Your task to perform on an android device: turn on location history Image 0: 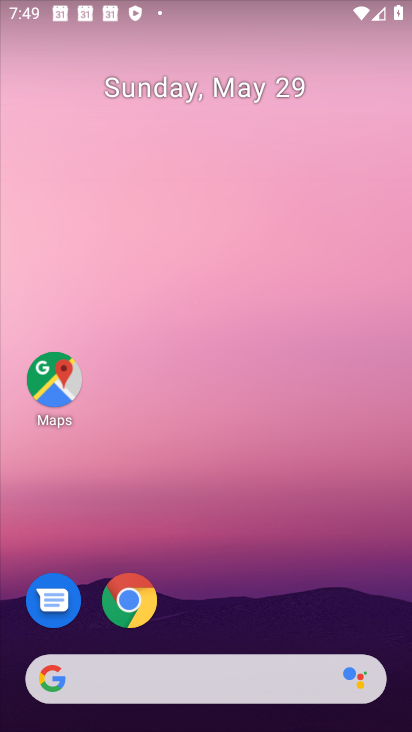
Step 0: drag from (226, 615) to (262, 102)
Your task to perform on an android device: turn on location history Image 1: 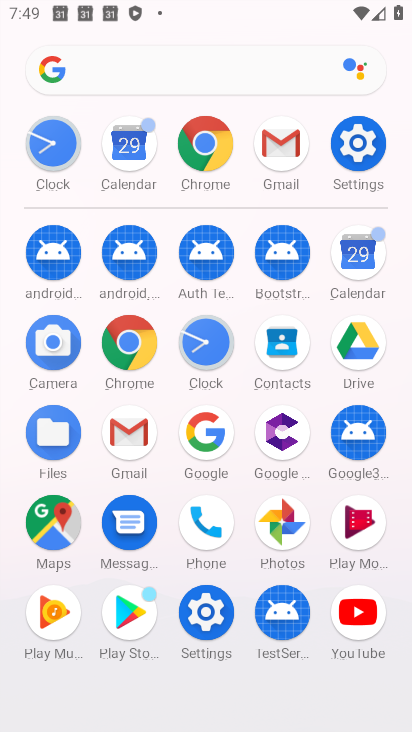
Step 1: click (212, 610)
Your task to perform on an android device: turn on location history Image 2: 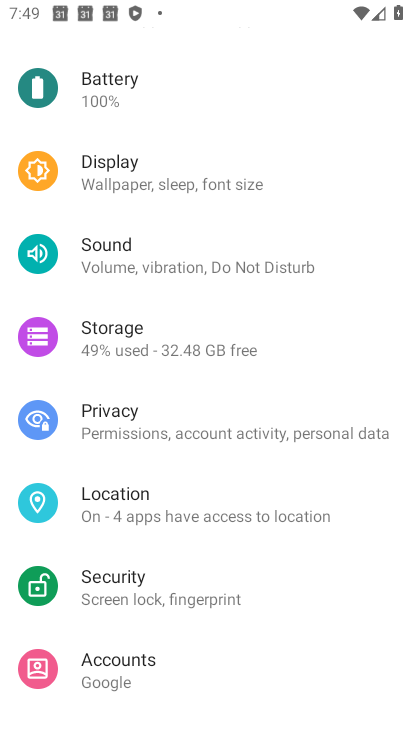
Step 2: click (197, 501)
Your task to perform on an android device: turn on location history Image 3: 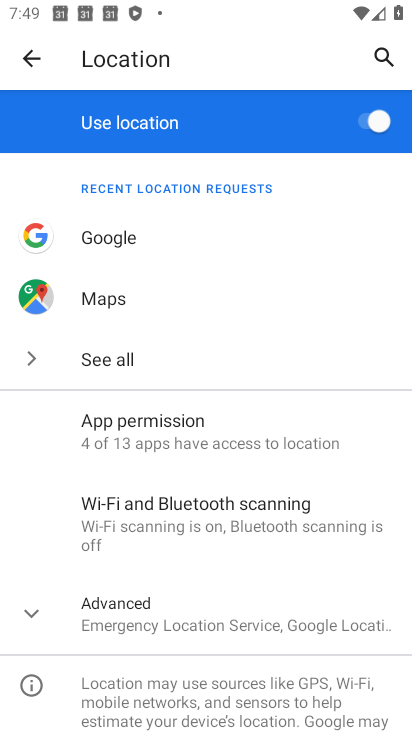
Step 3: task complete